Your task to perform on an android device: Check the weather Image 0: 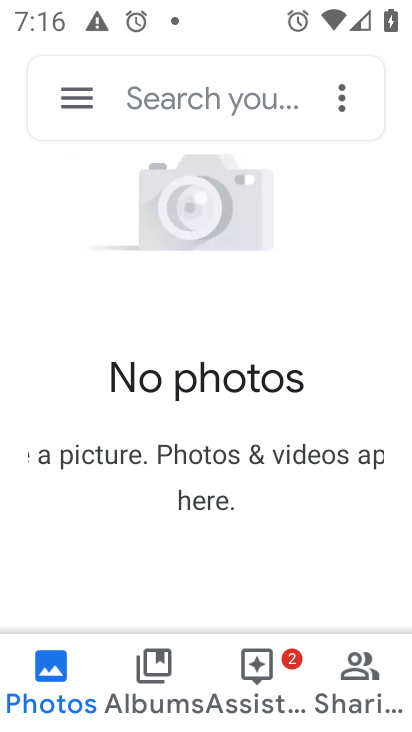
Step 0: press home button
Your task to perform on an android device: Check the weather Image 1: 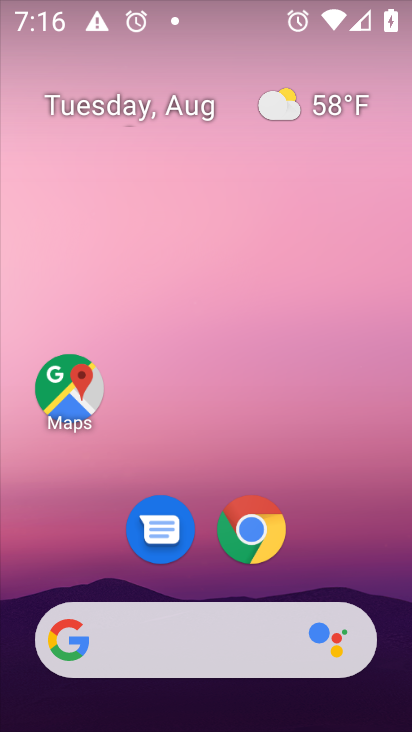
Step 1: click (65, 645)
Your task to perform on an android device: Check the weather Image 2: 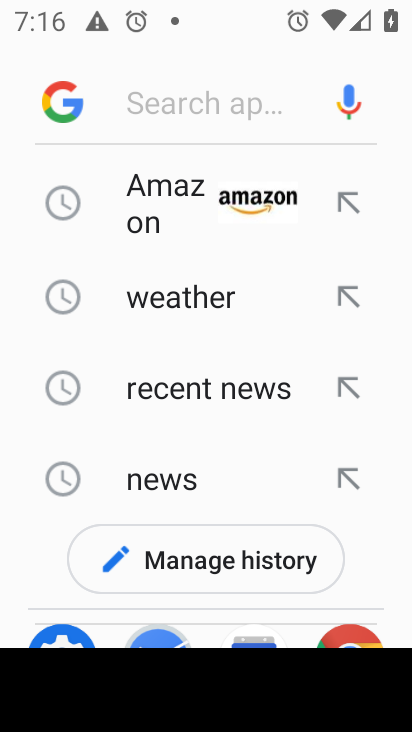
Step 2: click (190, 301)
Your task to perform on an android device: Check the weather Image 3: 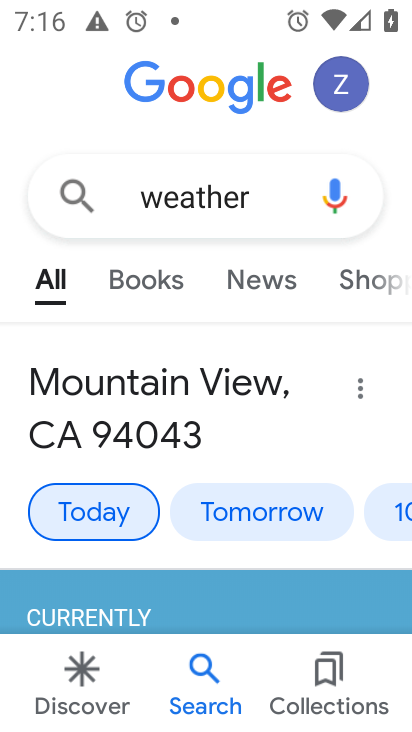
Step 3: task complete